Your task to perform on an android device: Go to CNN.com Image 0: 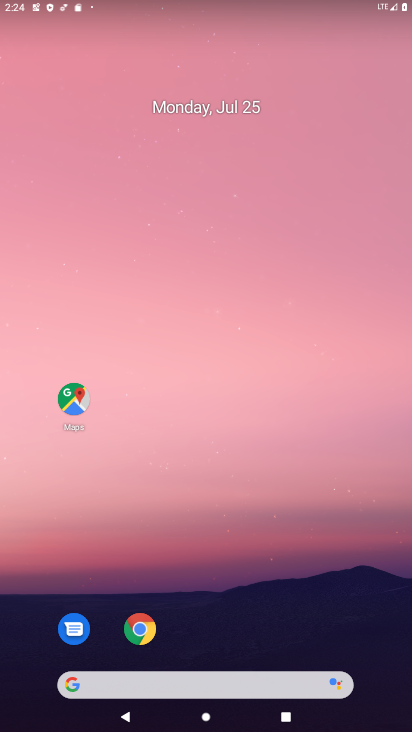
Step 0: drag from (187, 650) to (182, 225)
Your task to perform on an android device: Go to CNN.com Image 1: 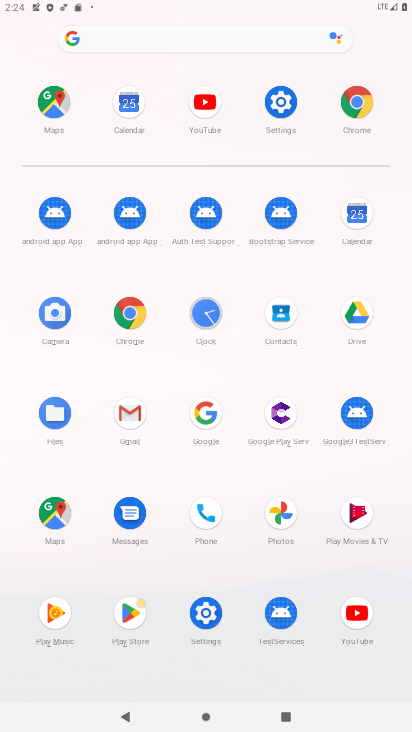
Step 1: click (138, 38)
Your task to perform on an android device: Go to CNN.com Image 2: 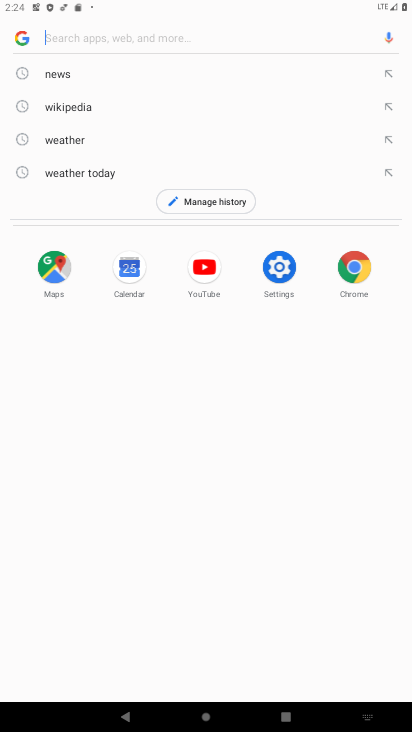
Step 2: type " CNN.com"
Your task to perform on an android device: Go to CNN.com Image 3: 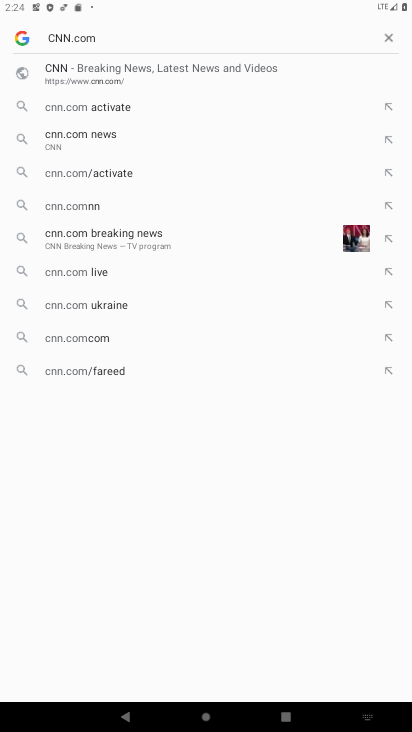
Step 3: click (101, 68)
Your task to perform on an android device: Go to CNN.com Image 4: 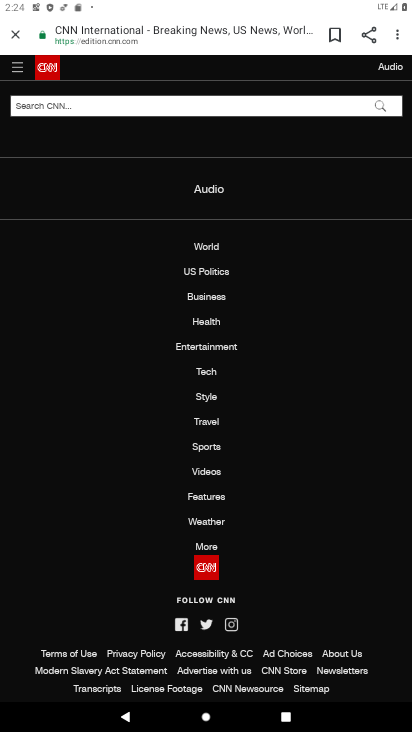
Step 4: task complete